Your task to perform on an android device: Open Google Maps Image 0: 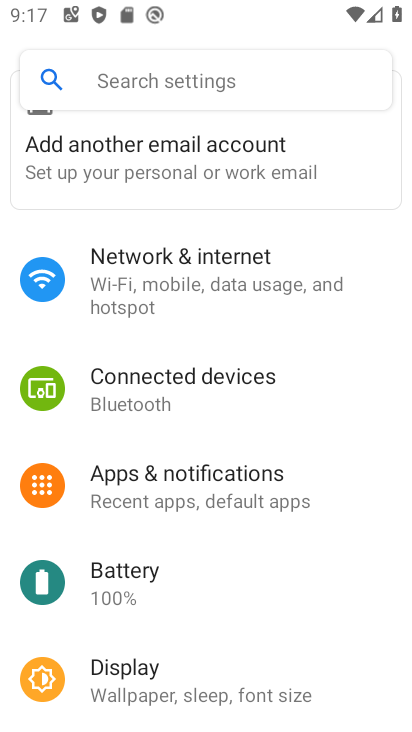
Step 0: press home button
Your task to perform on an android device: Open Google Maps Image 1: 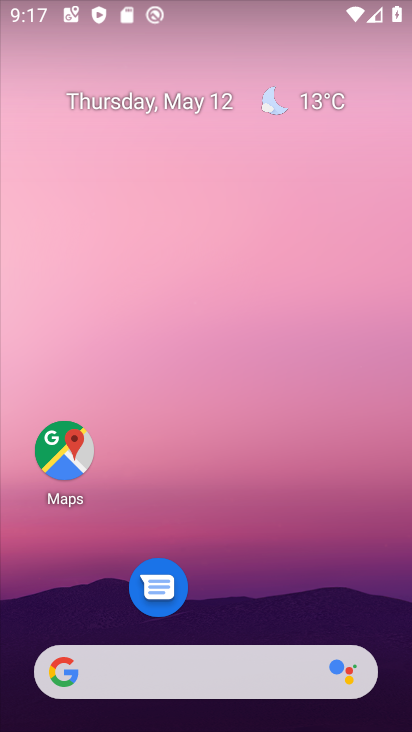
Step 1: click (66, 451)
Your task to perform on an android device: Open Google Maps Image 2: 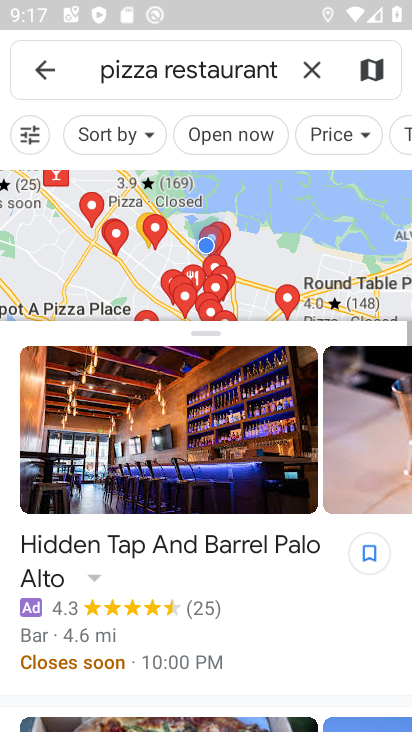
Step 2: click (44, 80)
Your task to perform on an android device: Open Google Maps Image 3: 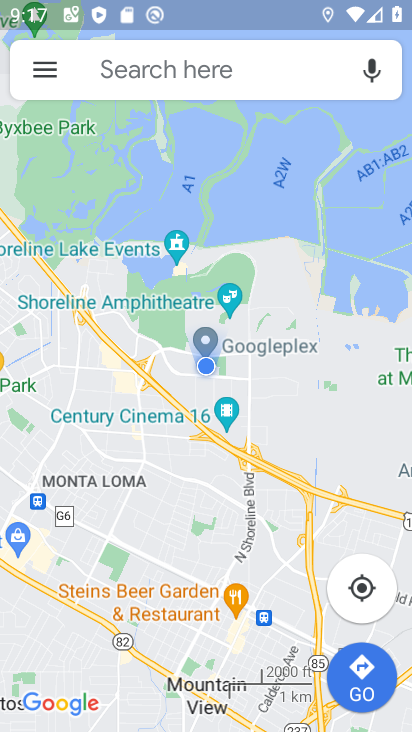
Step 3: task complete